Your task to perform on an android device: open app "Airtel Thanks" Image 0: 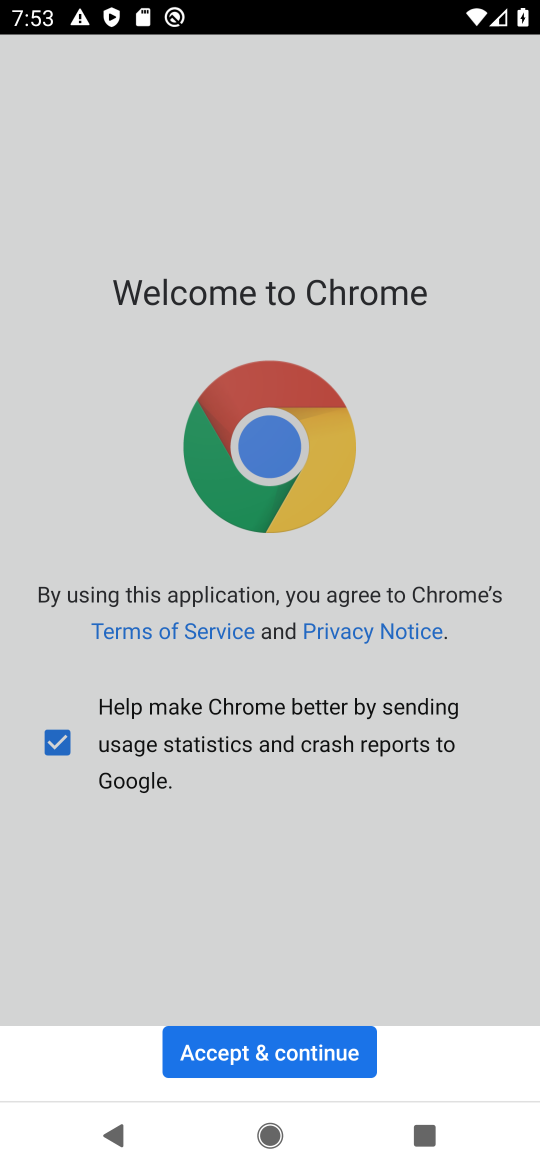
Step 0: press home button
Your task to perform on an android device: open app "Airtel Thanks" Image 1: 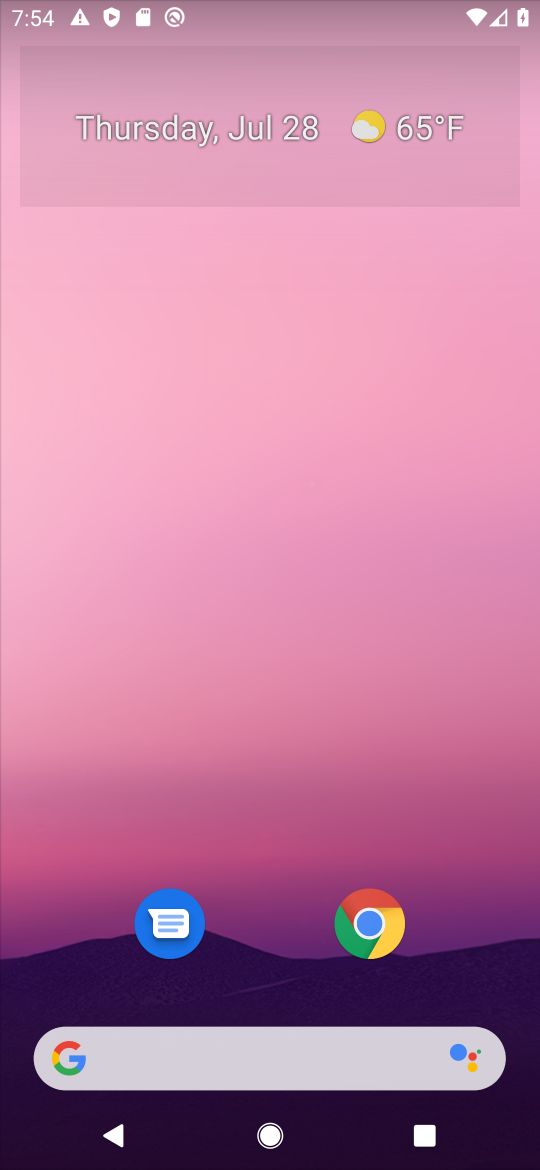
Step 1: drag from (440, 907) to (329, 91)
Your task to perform on an android device: open app "Airtel Thanks" Image 2: 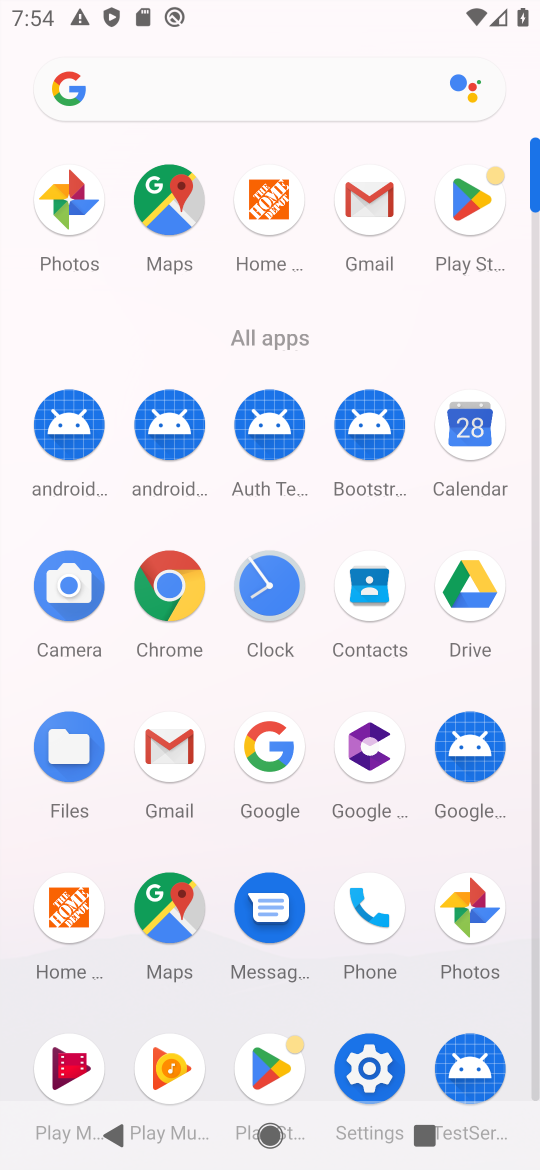
Step 2: click (455, 205)
Your task to perform on an android device: open app "Airtel Thanks" Image 3: 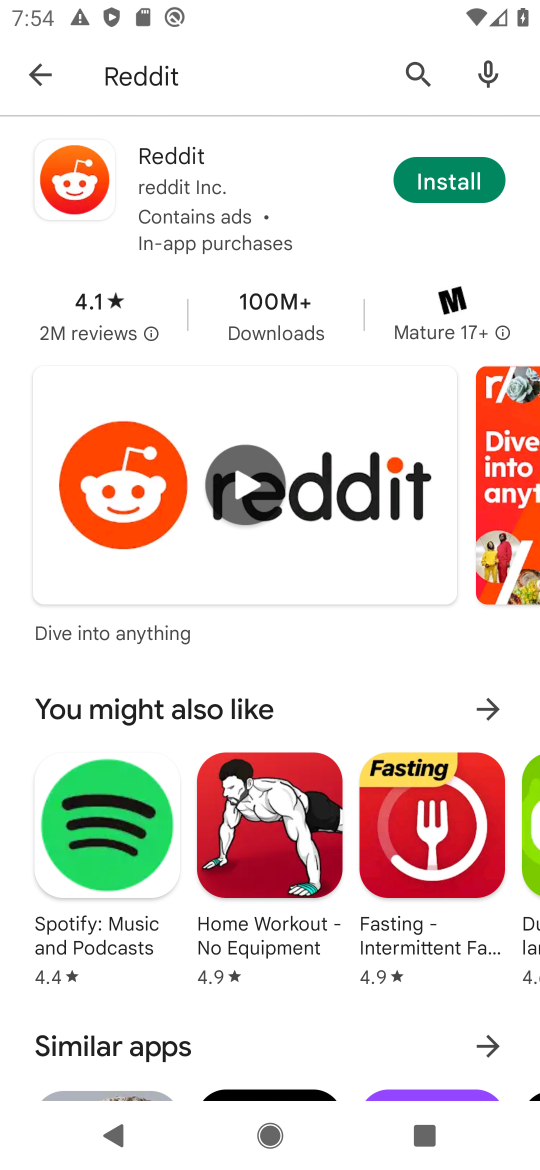
Step 3: click (279, 82)
Your task to perform on an android device: open app "Airtel Thanks" Image 4: 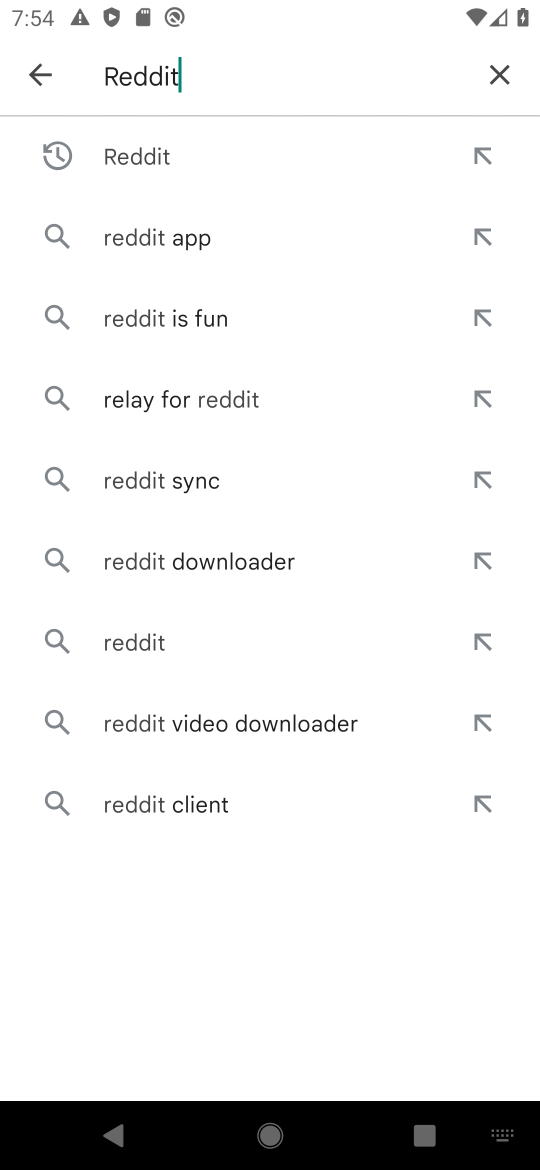
Step 4: click (503, 72)
Your task to perform on an android device: open app "Airtel Thanks" Image 5: 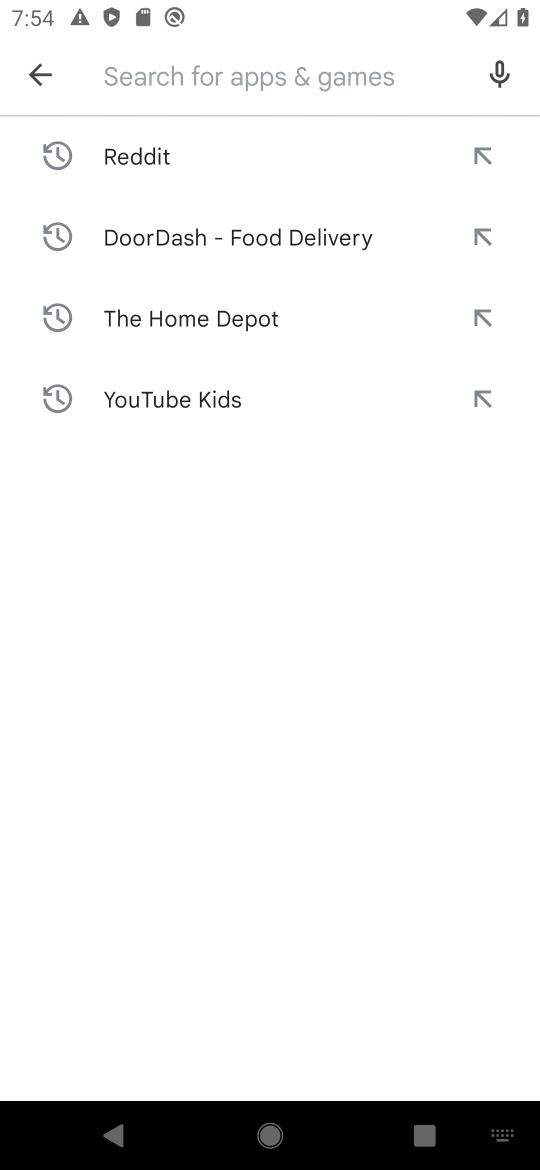
Step 5: type "Airtel Thanks"
Your task to perform on an android device: open app "Airtel Thanks" Image 6: 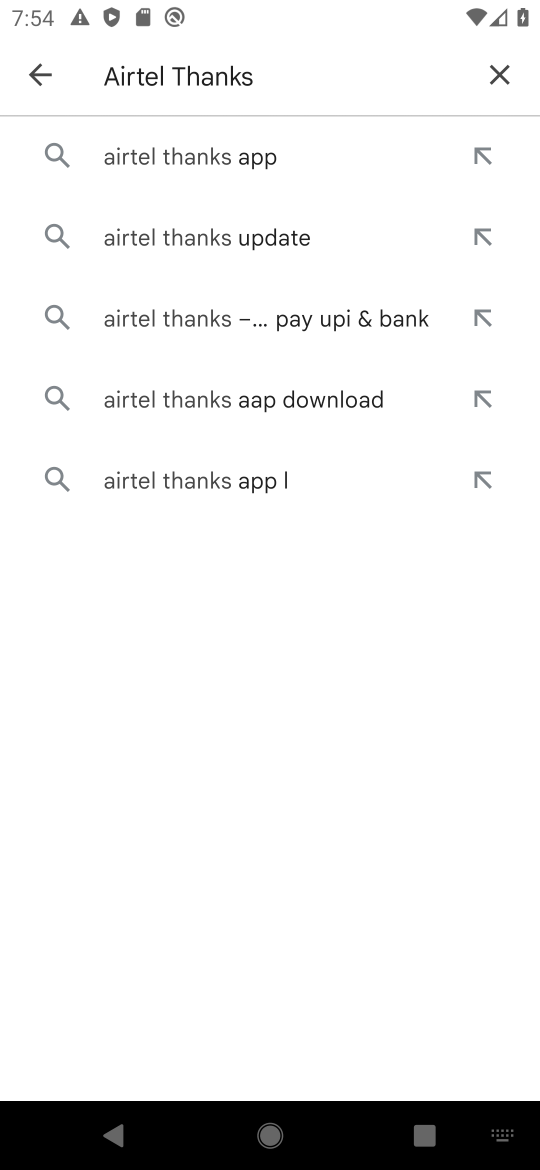
Step 6: press enter
Your task to perform on an android device: open app "Airtel Thanks" Image 7: 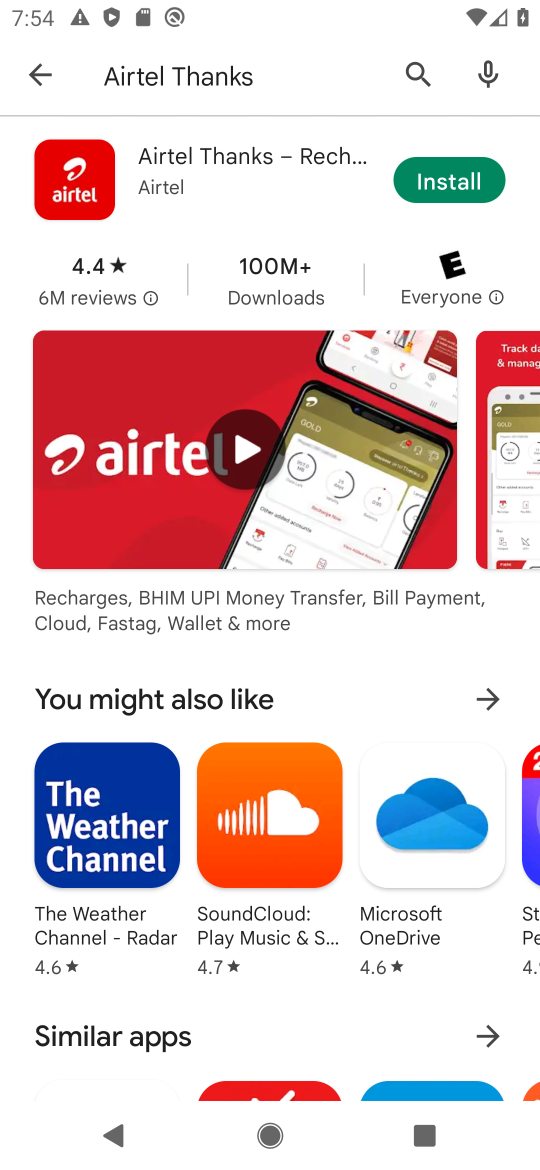
Step 7: task complete